Your task to perform on an android device: Search for pizza restaurants on Maps Image 0: 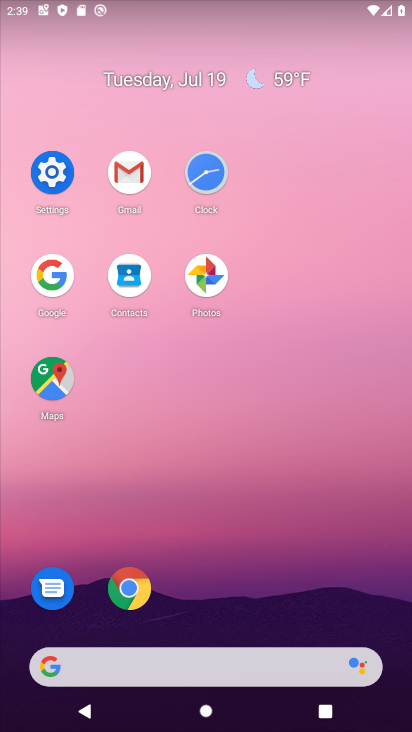
Step 0: click (51, 392)
Your task to perform on an android device: Search for pizza restaurants on Maps Image 1: 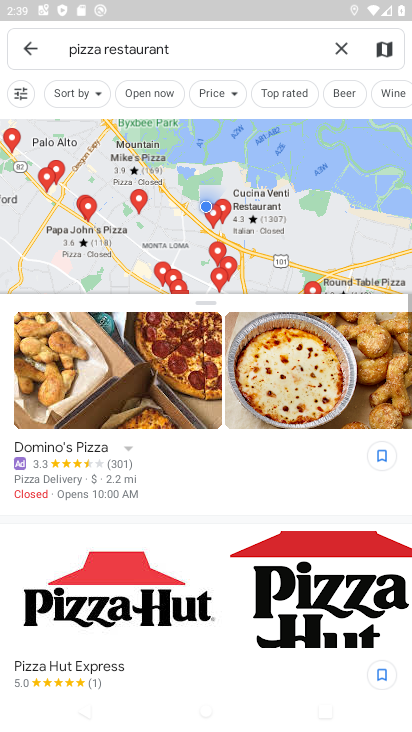
Step 1: task complete